Your task to perform on an android device: open chrome and create a bookmark for the current page Image 0: 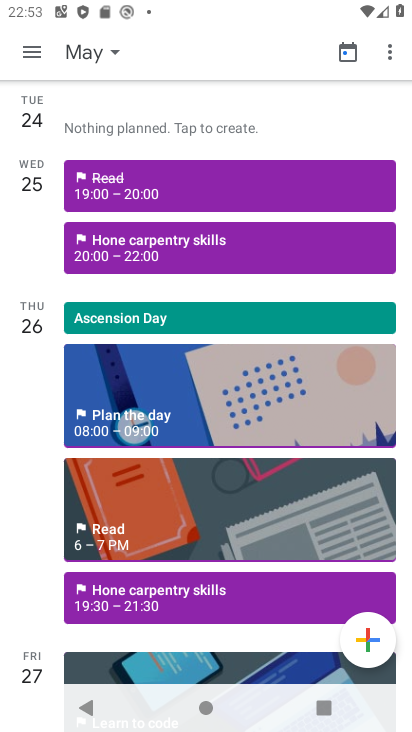
Step 0: click (116, 707)
Your task to perform on an android device: open chrome and create a bookmark for the current page Image 1: 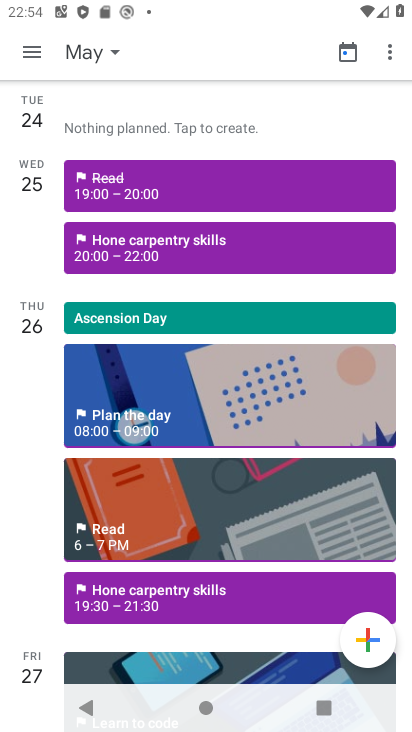
Step 1: press home button
Your task to perform on an android device: open chrome and create a bookmark for the current page Image 2: 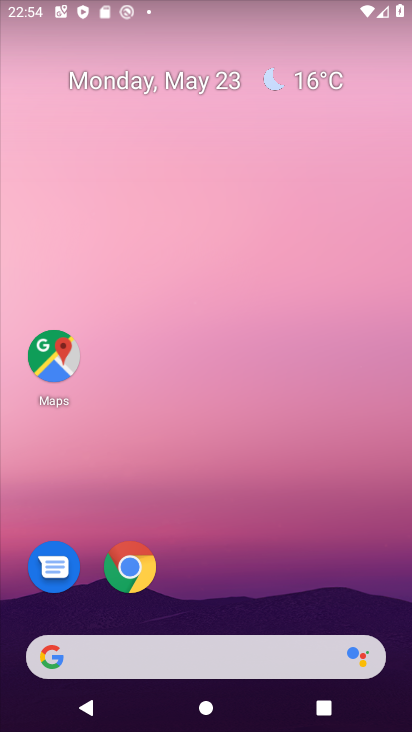
Step 2: click (131, 564)
Your task to perform on an android device: open chrome and create a bookmark for the current page Image 3: 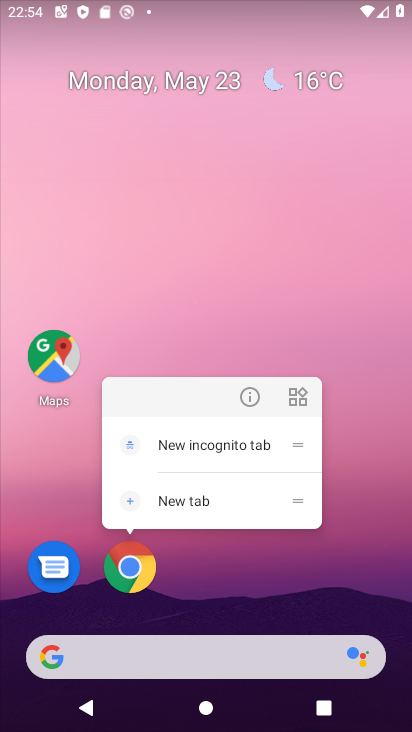
Step 3: click (135, 576)
Your task to perform on an android device: open chrome and create a bookmark for the current page Image 4: 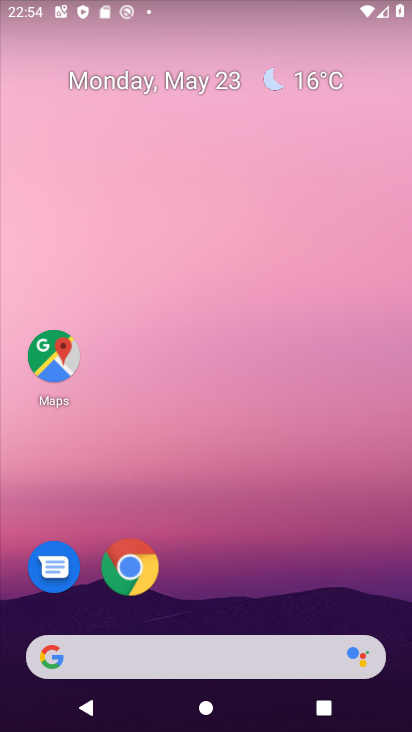
Step 4: click (228, 594)
Your task to perform on an android device: open chrome and create a bookmark for the current page Image 5: 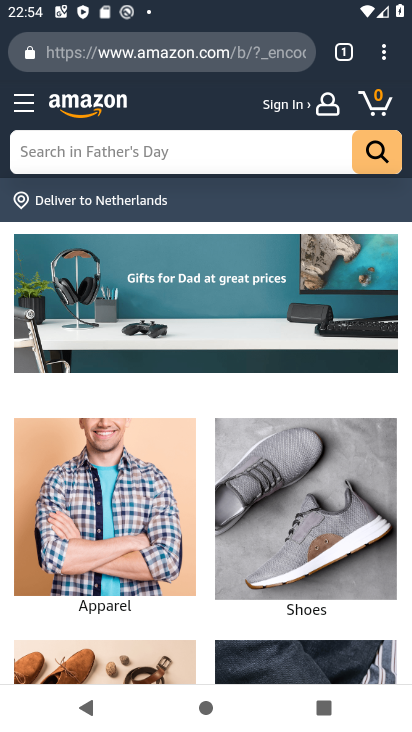
Step 5: click (141, 569)
Your task to perform on an android device: open chrome and create a bookmark for the current page Image 6: 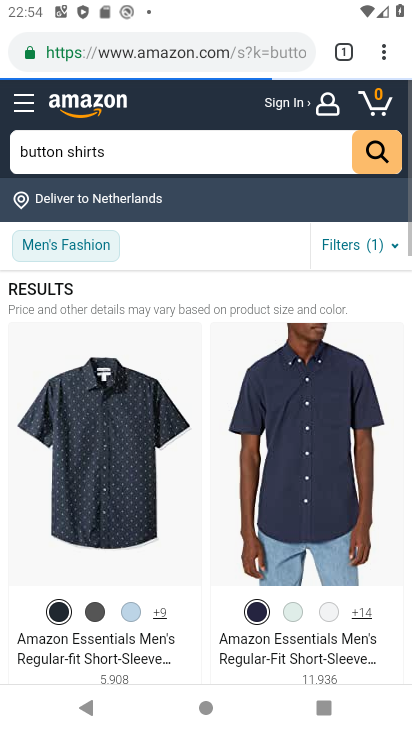
Step 6: click (387, 50)
Your task to perform on an android device: open chrome and create a bookmark for the current page Image 7: 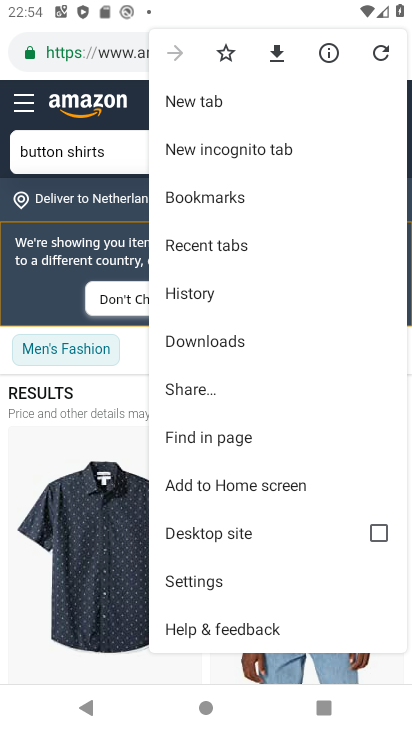
Step 7: click (232, 189)
Your task to perform on an android device: open chrome and create a bookmark for the current page Image 8: 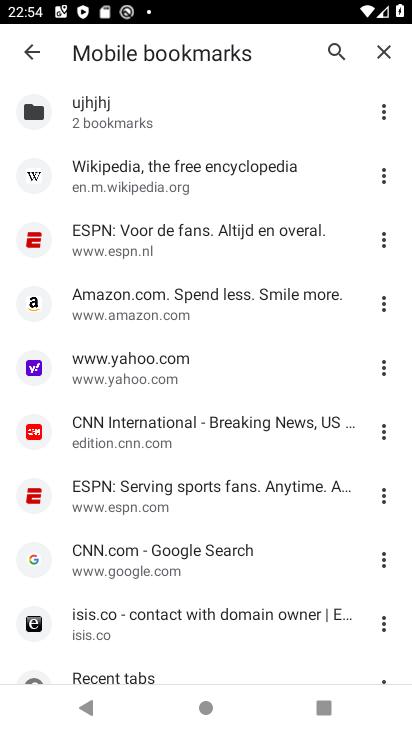
Step 8: click (379, 51)
Your task to perform on an android device: open chrome and create a bookmark for the current page Image 9: 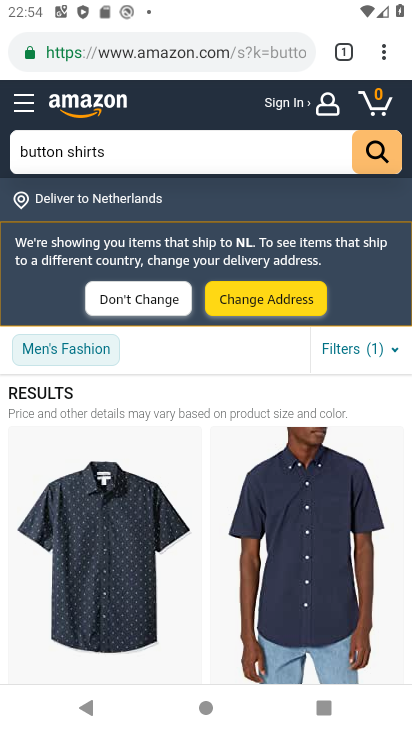
Step 9: click (386, 47)
Your task to perform on an android device: open chrome and create a bookmark for the current page Image 10: 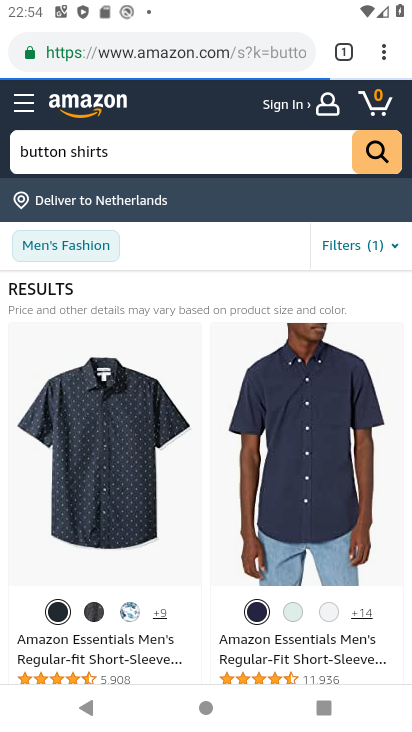
Step 10: click (375, 49)
Your task to perform on an android device: open chrome and create a bookmark for the current page Image 11: 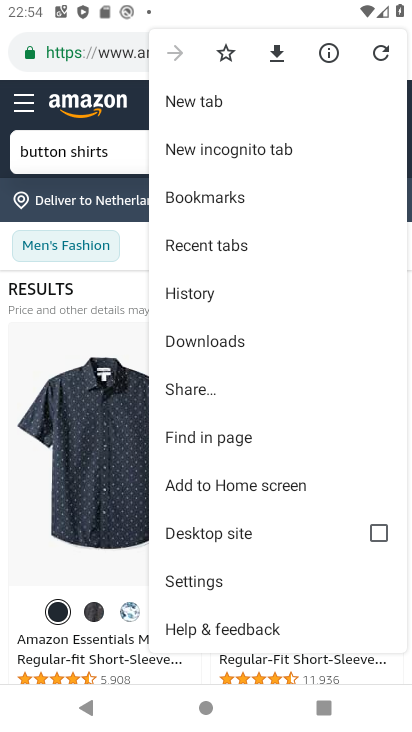
Step 11: click (229, 48)
Your task to perform on an android device: open chrome and create a bookmark for the current page Image 12: 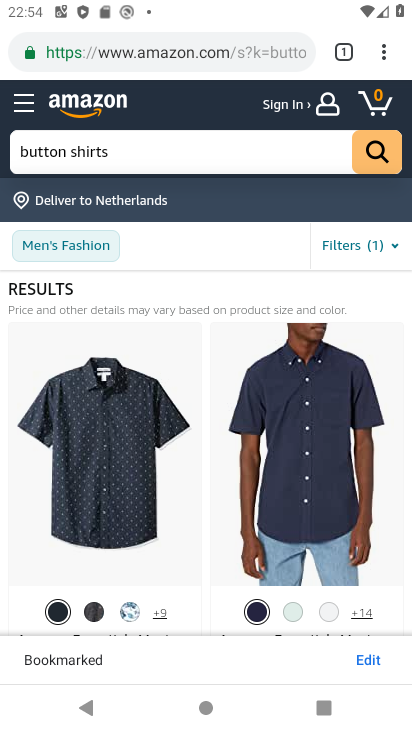
Step 12: task complete